Your task to perform on an android device: Go to network settings Image 0: 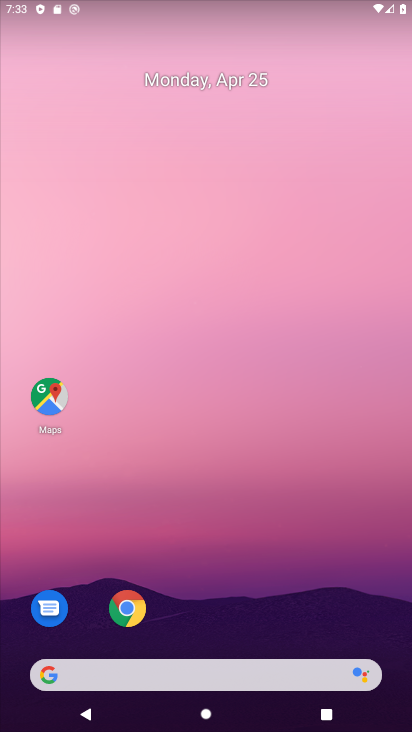
Step 0: drag from (251, 578) to (251, 89)
Your task to perform on an android device: Go to network settings Image 1: 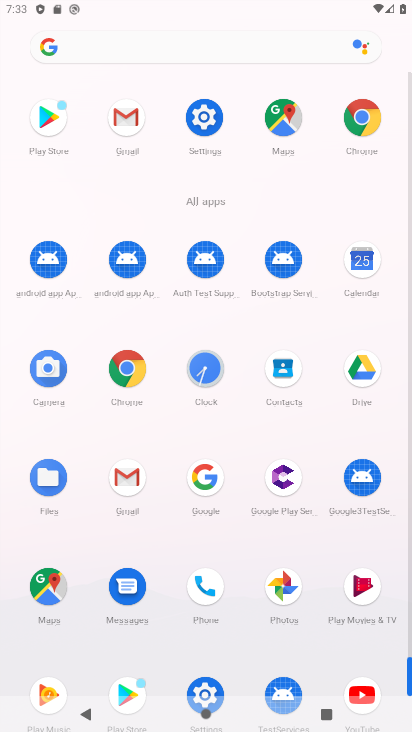
Step 1: click (208, 121)
Your task to perform on an android device: Go to network settings Image 2: 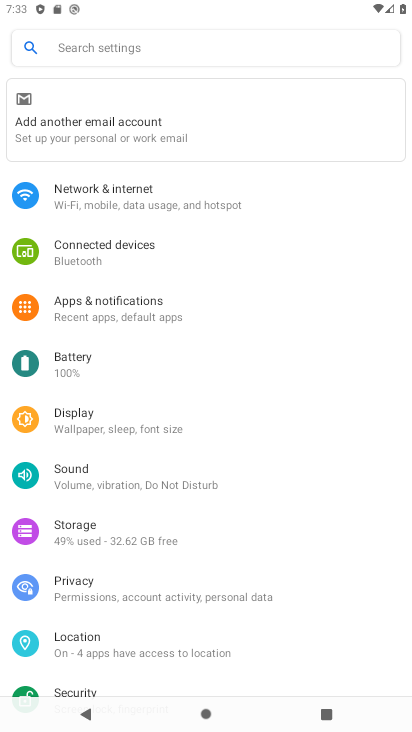
Step 2: click (183, 193)
Your task to perform on an android device: Go to network settings Image 3: 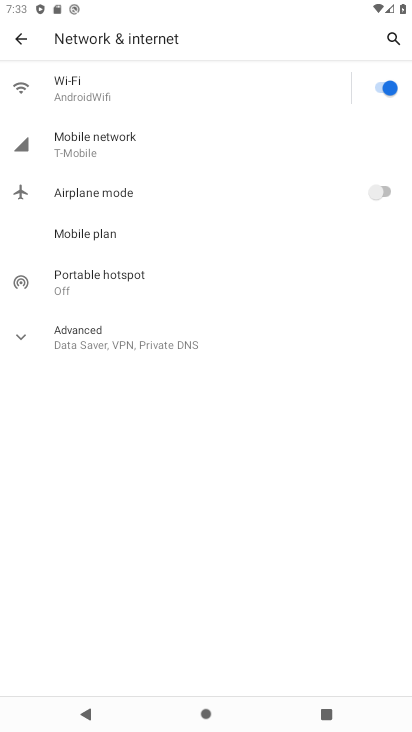
Step 3: task complete